Your task to perform on an android device: create a new album in the google photos Image 0: 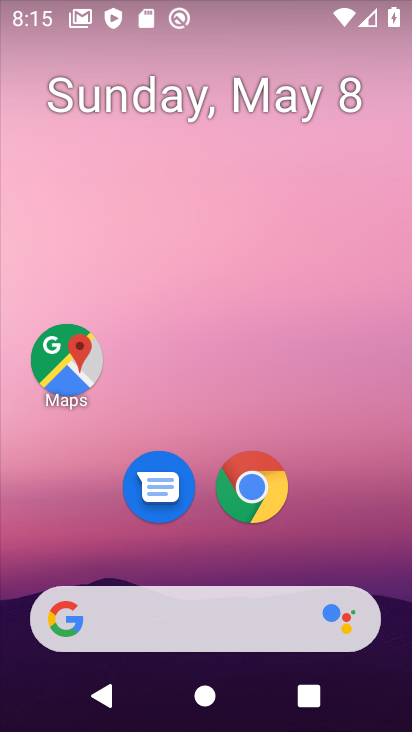
Step 0: drag from (305, 532) to (296, 336)
Your task to perform on an android device: create a new album in the google photos Image 1: 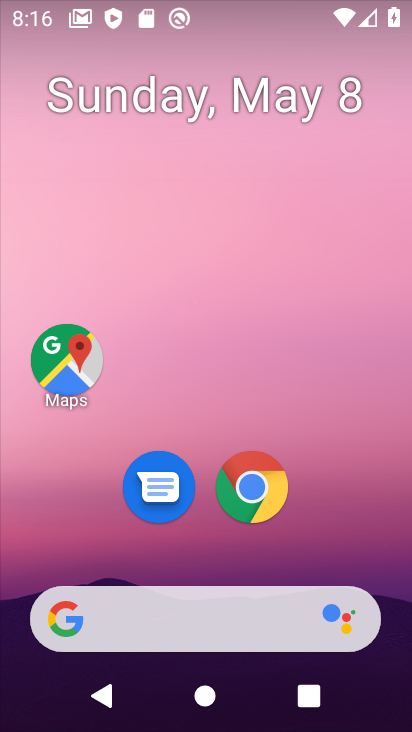
Step 1: drag from (295, 528) to (262, 85)
Your task to perform on an android device: create a new album in the google photos Image 2: 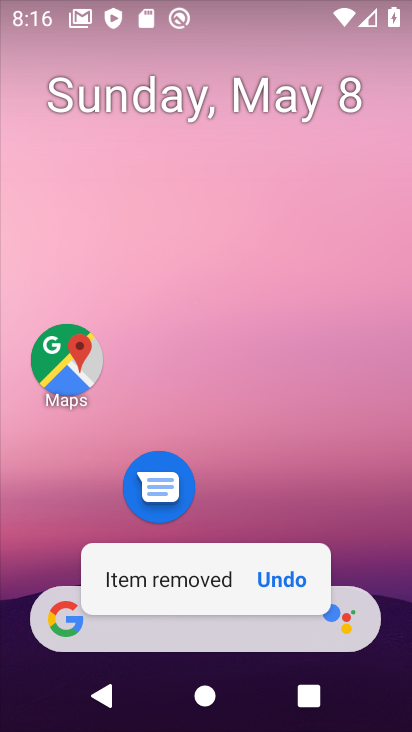
Step 2: click (336, 520)
Your task to perform on an android device: create a new album in the google photos Image 3: 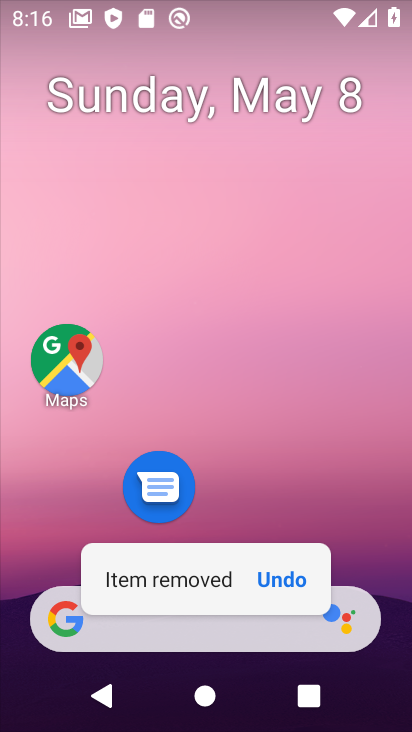
Step 3: drag from (336, 520) to (302, 73)
Your task to perform on an android device: create a new album in the google photos Image 4: 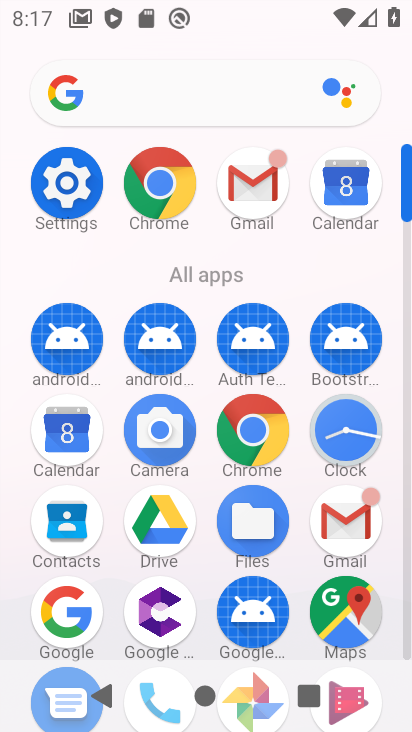
Step 4: click (408, 647)
Your task to perform on an android device: create a new album in the google photos Image 5: 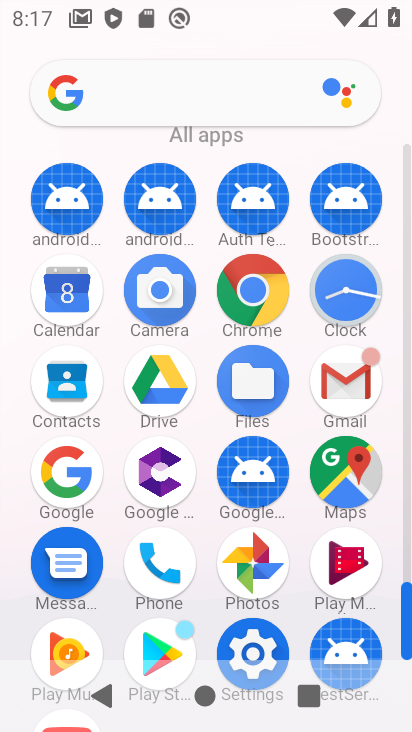
Step 5: click (250, 578)
Your task to perform on an android device: create a new album in the google photos Image 6: 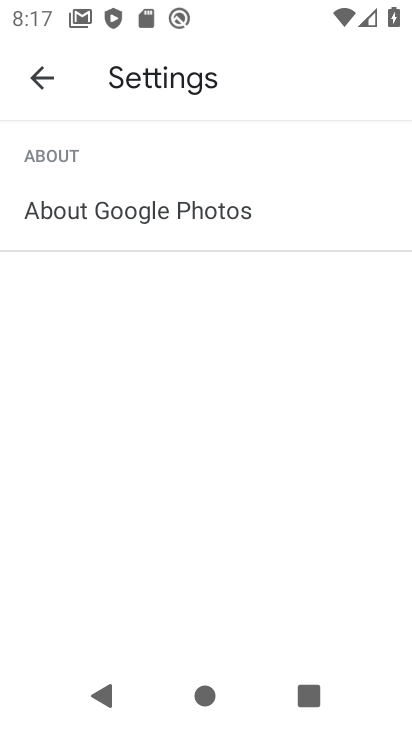
Step 6: task complete